Your task to perform on an android device: Search for seafood restaurants on Google Maps Image 0: 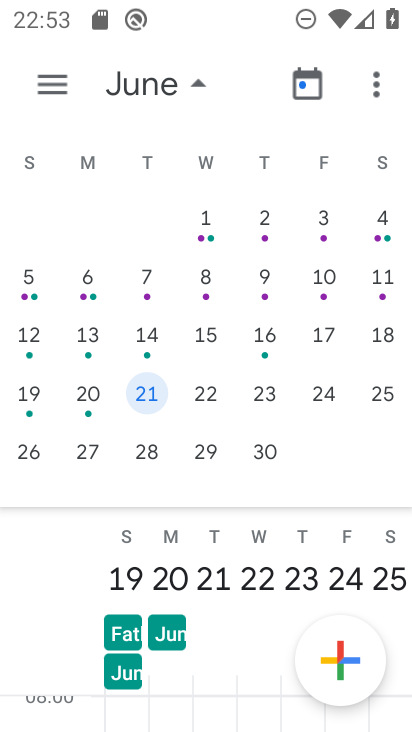
Step 0: press home button
Your task to perform on an android device: Search for seafood restaurants on Google Maps Image 1: 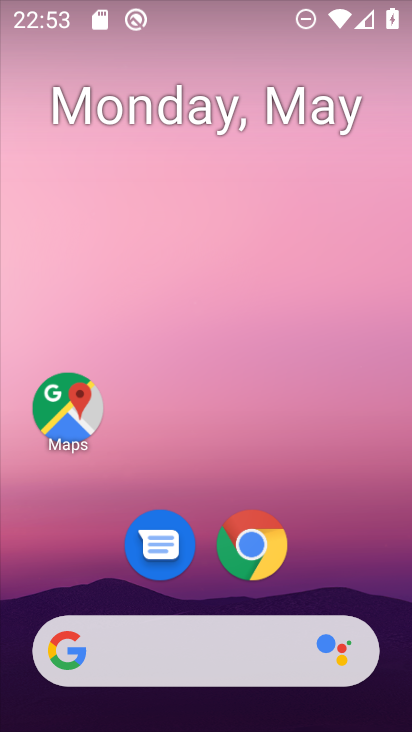
Step 1: click (62, 399)
Your task to perform on an android device: Search for seafood restaurants on Google Maps Image 2: 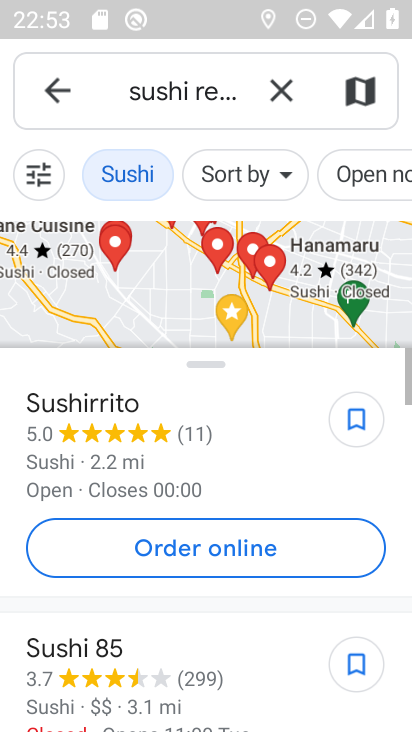
Step 2: click (286, 85)
Your task to perform on an android device: Search for seafood restaurants on Google Maps Image 3: 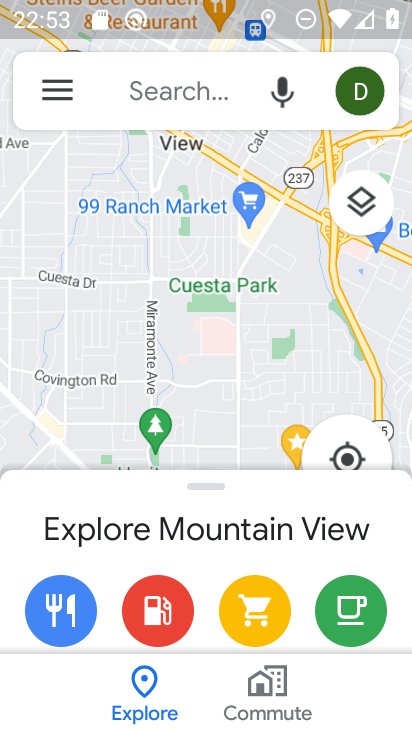
Step 3: click (197, 87)
Your task to perform on an android device: Search for seafood restaurants on Google Maps Image 4: 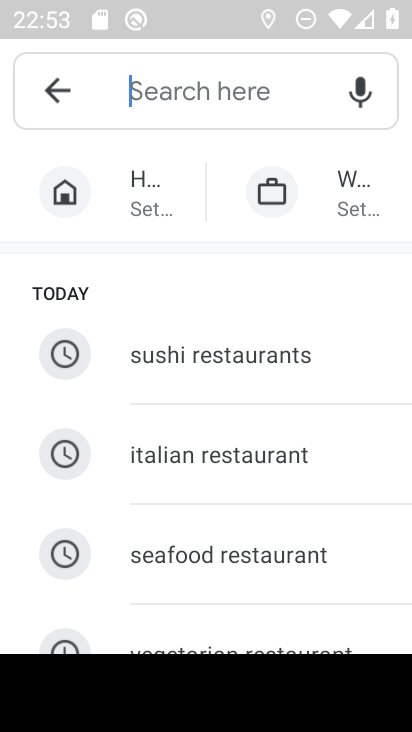
Step 4: click (203, 555)
Your task to perform on an android device: Search for seafood restaurants on Google Maps Image 5: 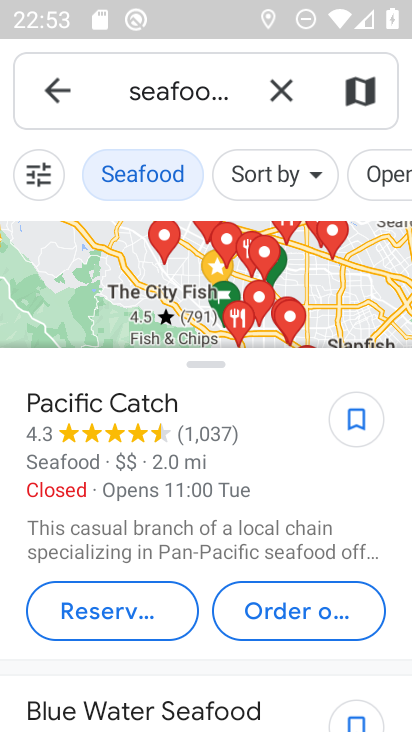
Step 5: task complete